Your task to perform on an android device: Go to Reddit.com Image 0: 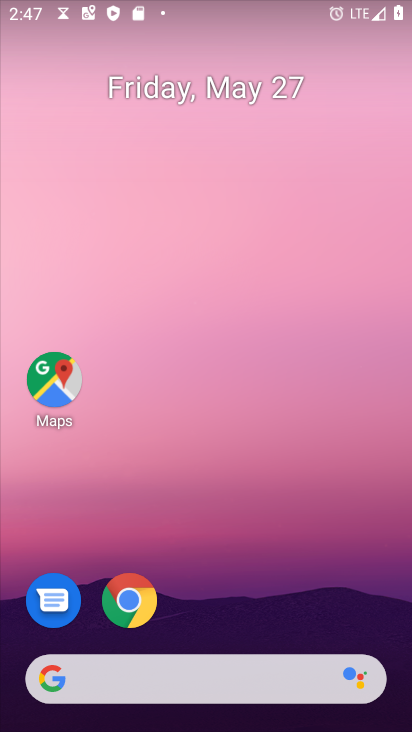
Step 0: drag from (244, 532) to (231, 42)
Your task to perform on an android device: Go to Reddit.com Image 1: 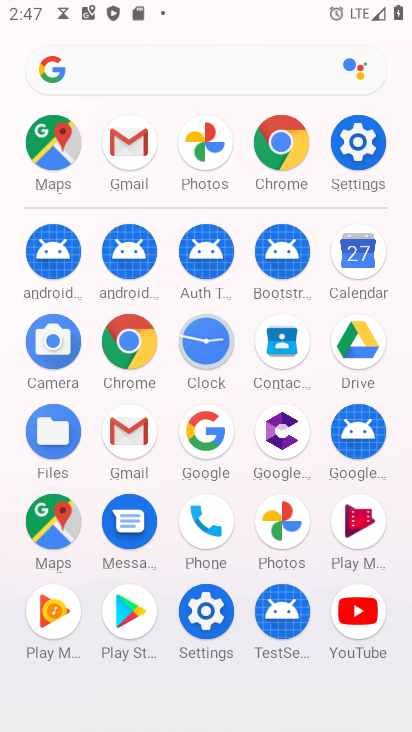
Step 1: drag from (15, 499) to (26, 199)
Your task to perform on an android device: Go to Reddit.com Image 2: 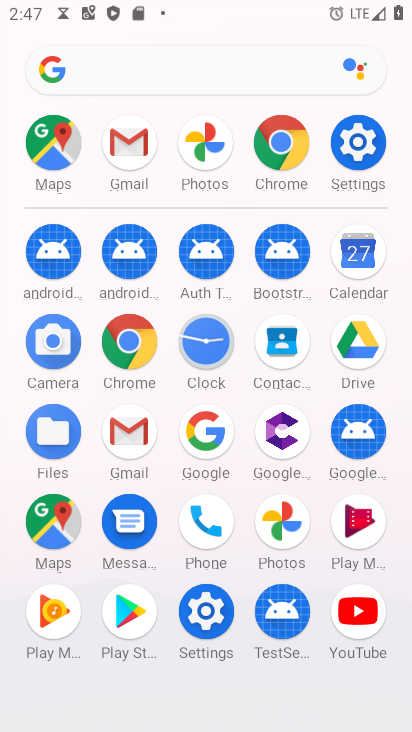
Step 2: click (118, 334)
Your task to perform on an android device: Go to Reddit.com Image 3: 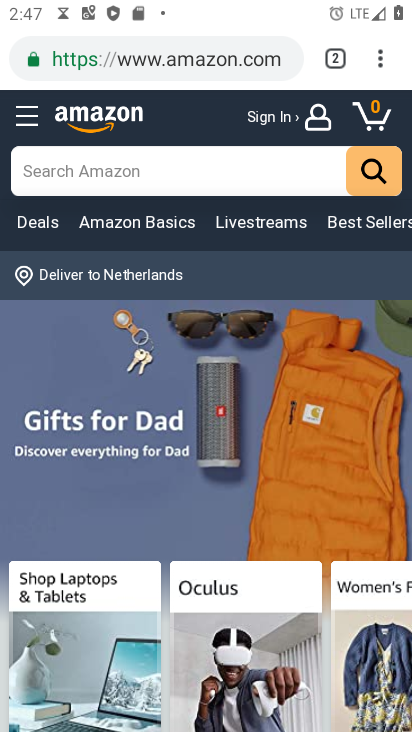
Step 3: click (179, 40)
Your task to perform on an android device: Go to Reddit.com Image 4: 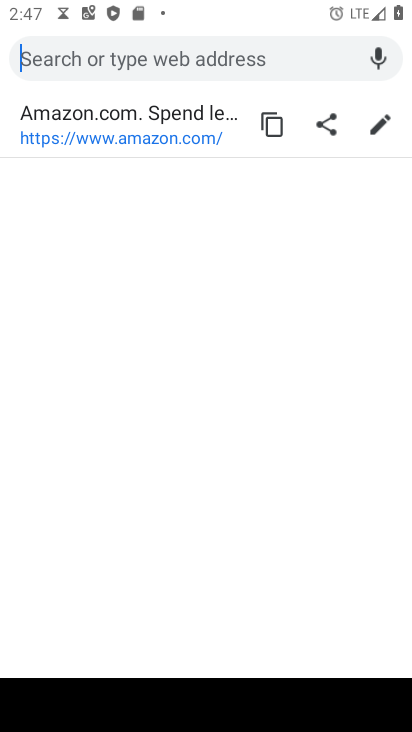
Step 4: type "Reddit.com"
Your task to perform on an android device: Go to Reddit.com Image 5: 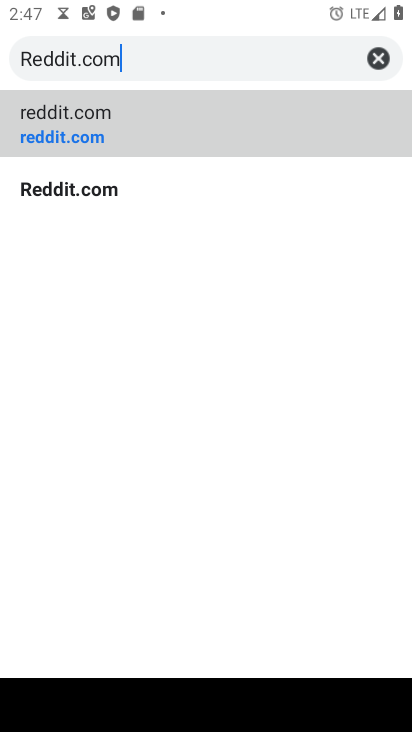
Step 5: type ""
Your task to perform on an android device: Go to Reddit.com Image 6: 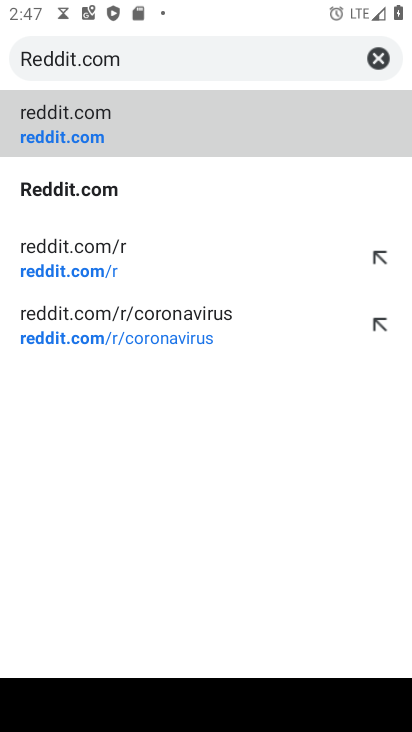
Step 6: click (124, 136)
Your task to perform on an android device: Go to Reddit.com Image 7: 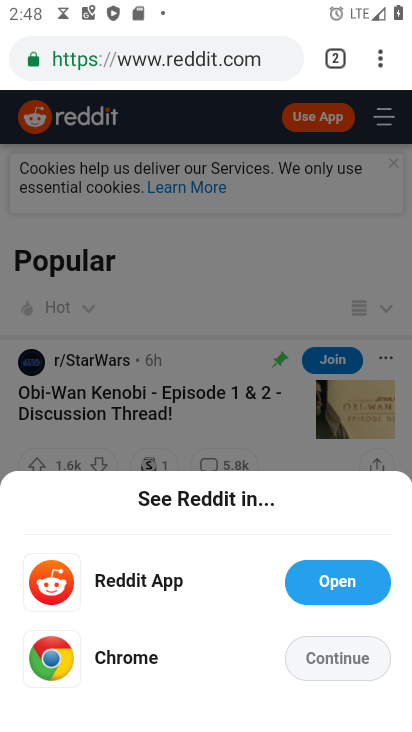
Step 7: task complete